Your task to perform on an android device: change the upload size in google photos Image 0: 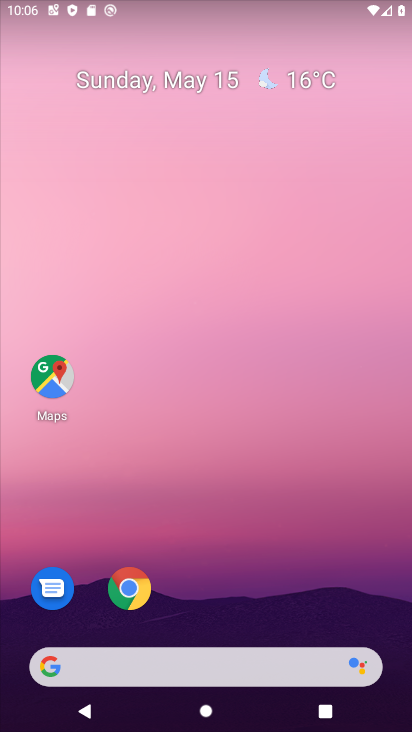
Step 0: drag from (197, 610) to (265, 159)
Your task to perform on an android device: change the upload size in google photos Image 1: 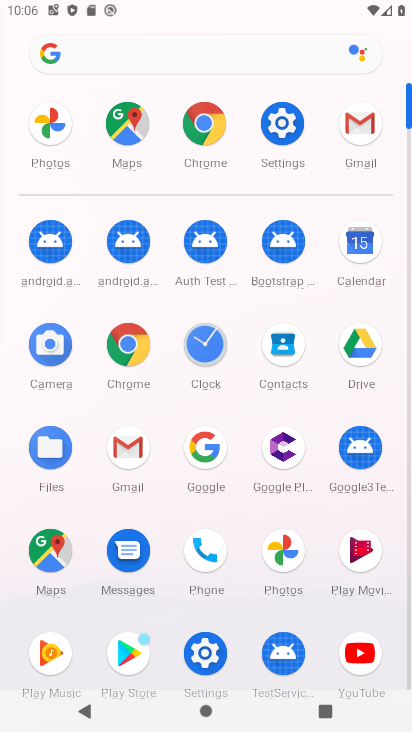
Step 1: click (278, 551)
Your task to perform on an android device: change the upload size in google photos Image 2: 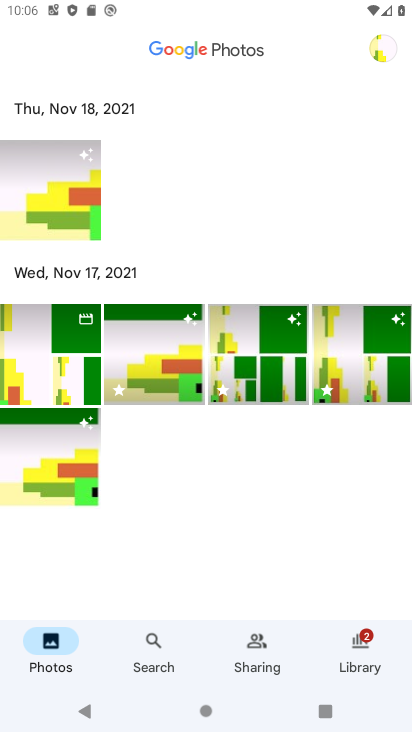
Step 2: click (48, 644)
Your task to perform on an android device: change the upload size in google photos Image 3: 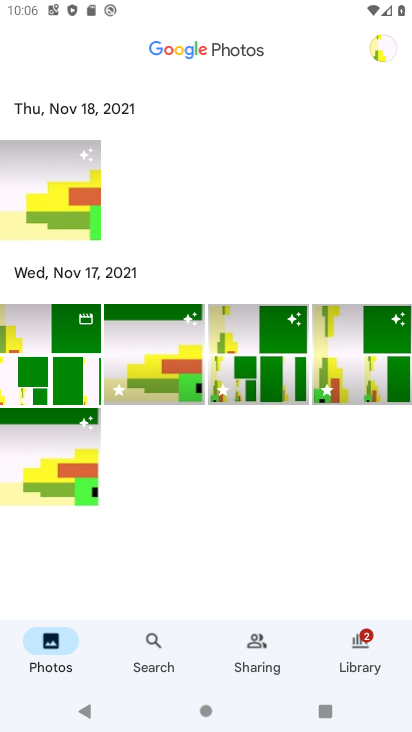
Step 3: click (378, 52)
Your task to perform on an android device: change the upload size in google photos Image 4: 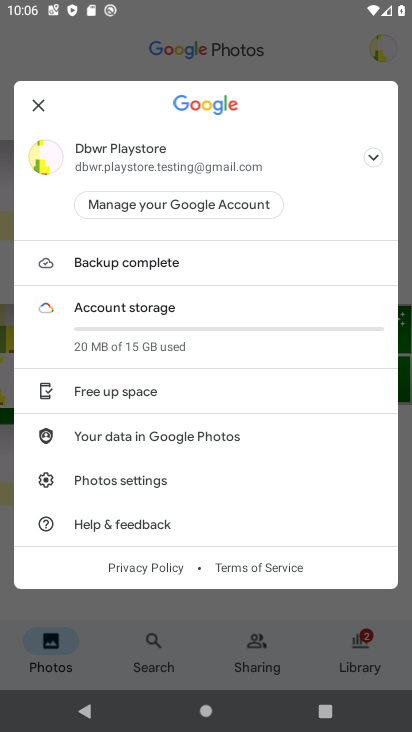
Step 4: click (110, 482)
Your task to perform on an android device: change the upload size in google photos Image 5: 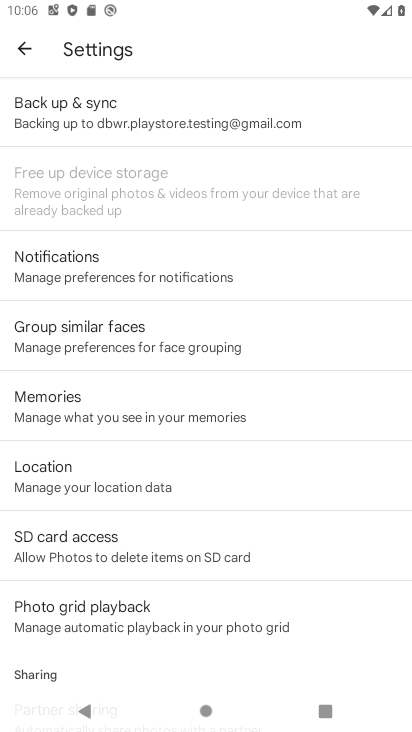
Step 5: click (158, 115)
Your task to perform on an android device: change the upload size in google photos Image 6: 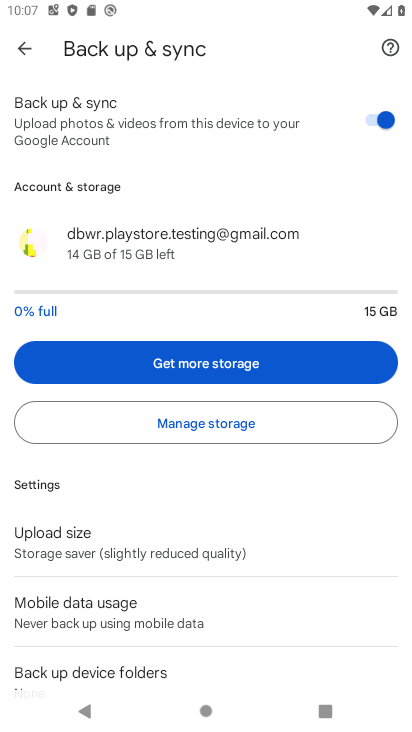
Step 6: click (109, 542)
Your task to perform on an android device: change the upload size in google photos Image 7: 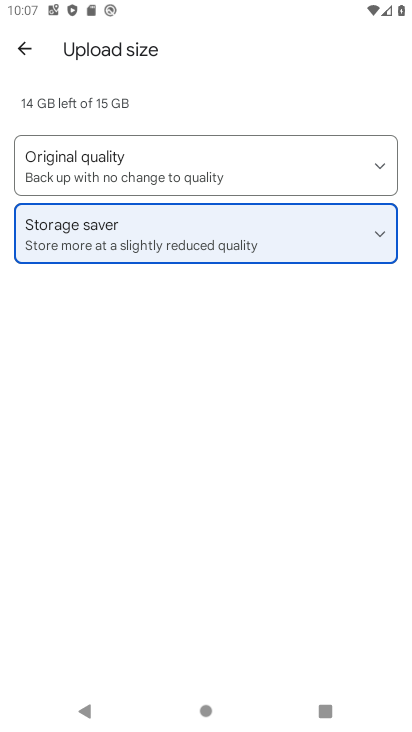
Step 7: click (149, 184)
Your task to perform on an android device: change the upload size in google photos Image 8: 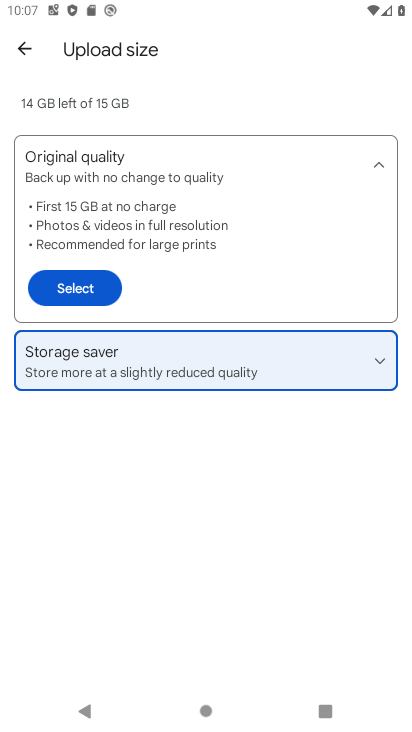
Step 8: click (67, 287)
Your task to perform on an android device: change the upload size in google photos Image 9: 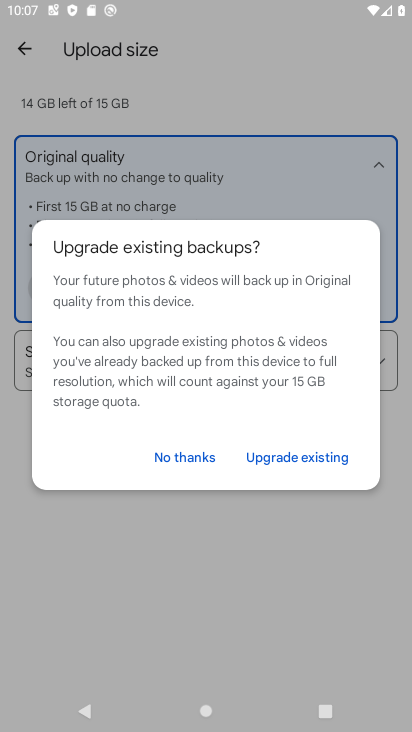
Step 9: click (207, 451)
Your task to perform on an android device: change the upload size in google photos Image 10: 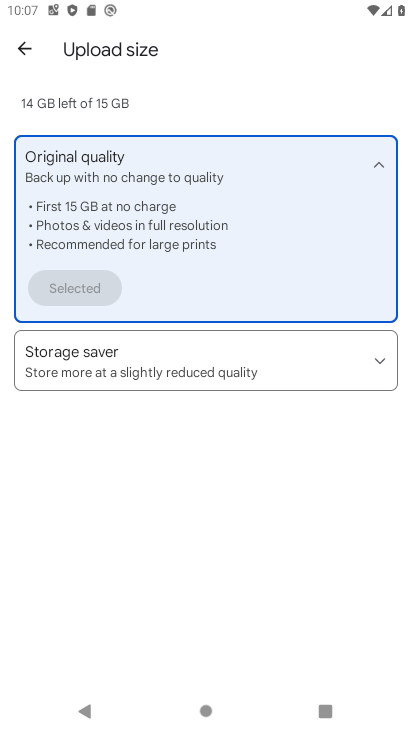
Step 10: task complete